Your task to perform on an android device: turn off priority inbox in the gmail app Image 0: 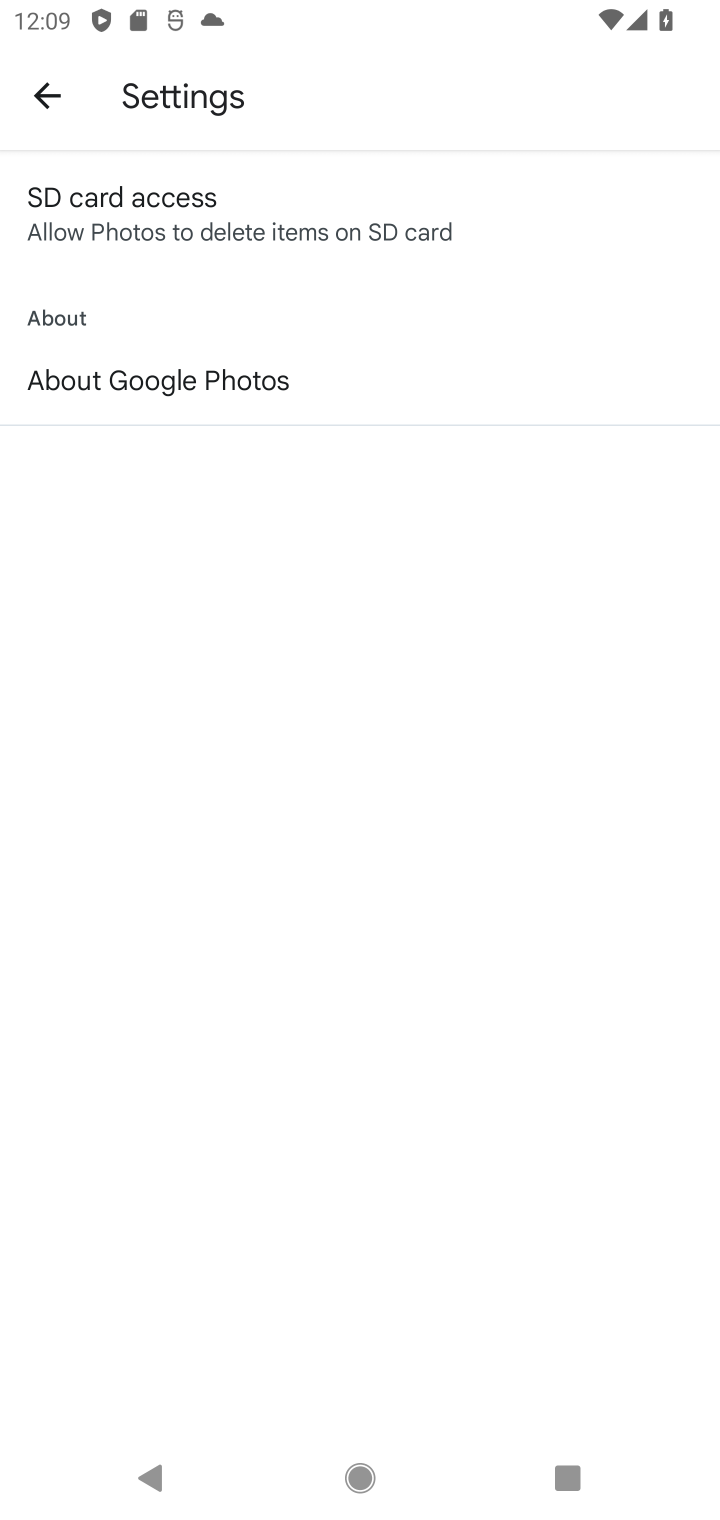
Step 0: press home button
Your task to perform on an android device: turn off priority inbox in the gmail app Image 1: 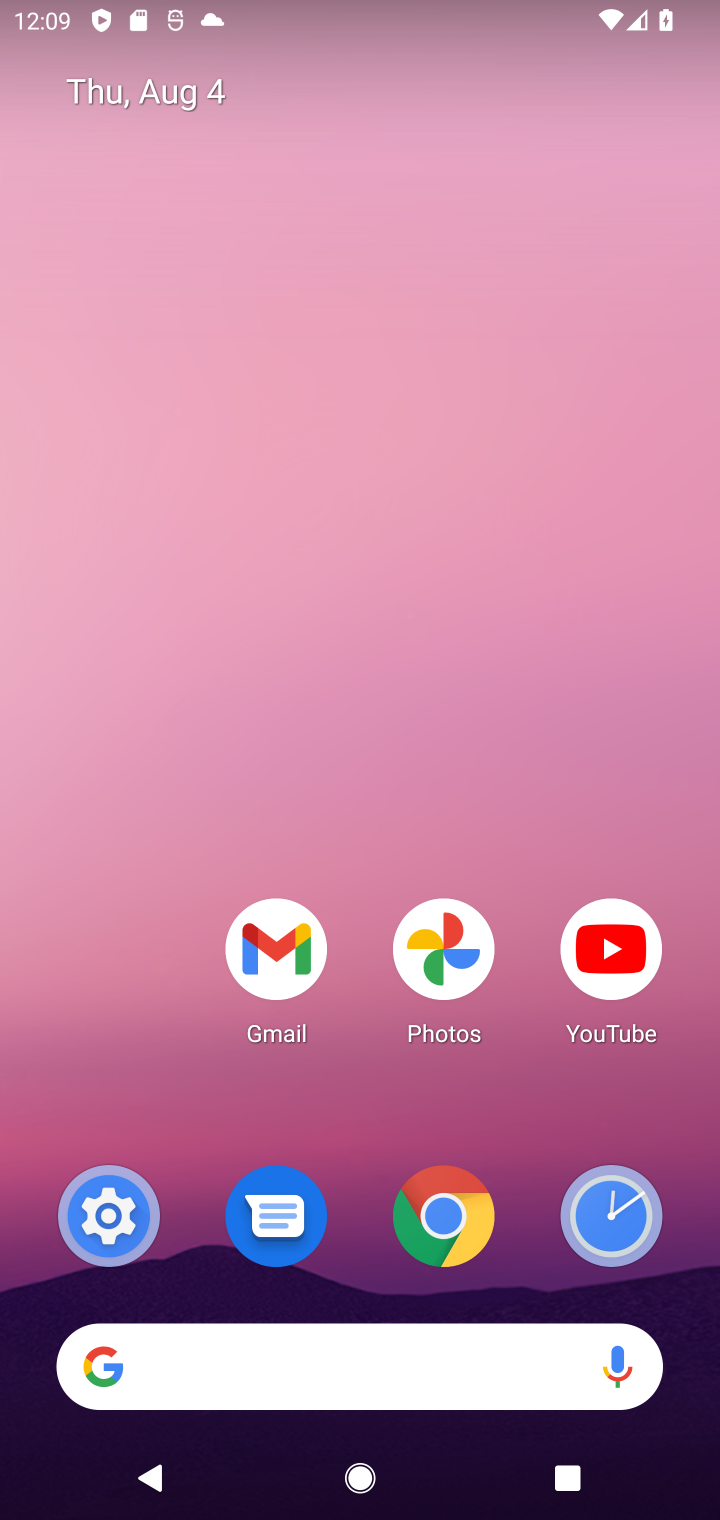
Step 1: click (277, 948)
Your task to perform on an android device: turn off priority inbox in the gmail app Image 2: 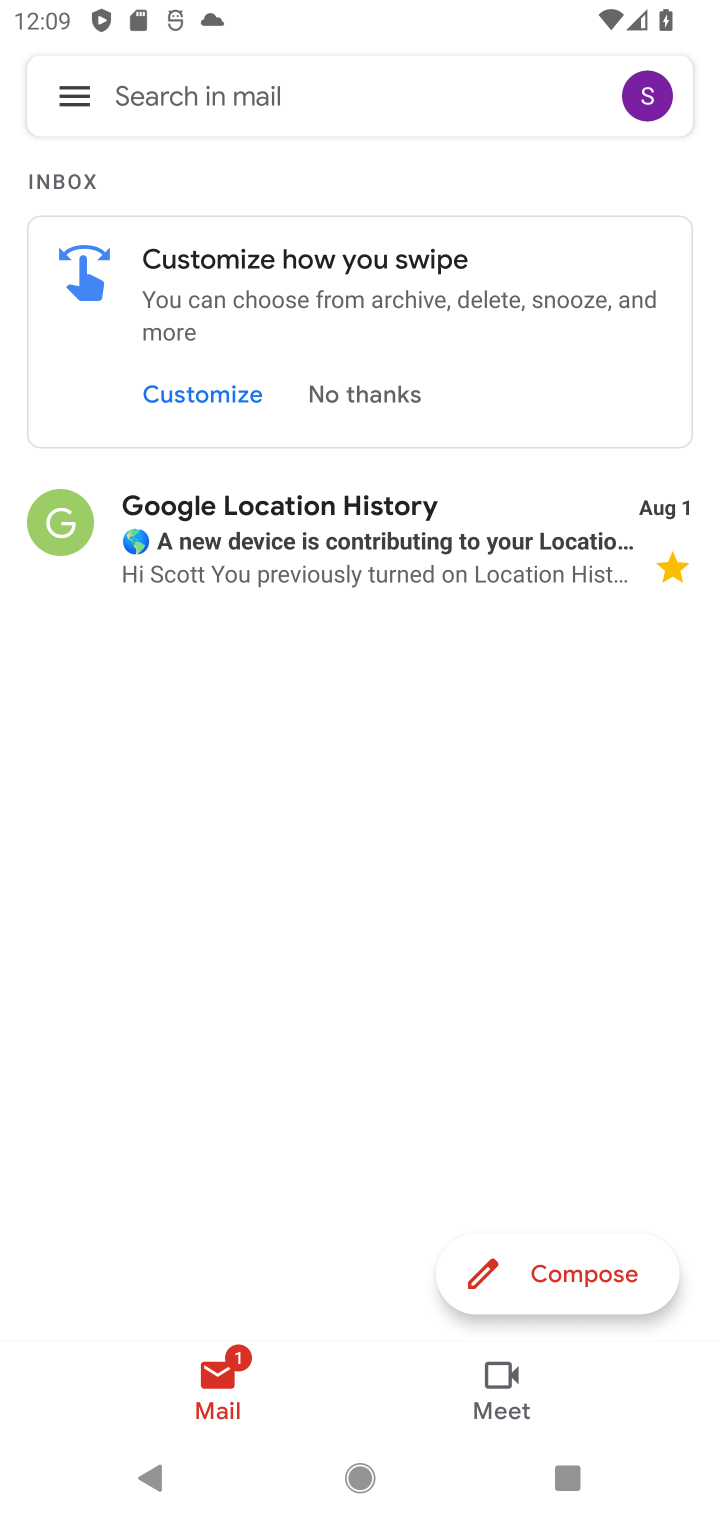
Step 2: click (75, 95)
Your task to perform on an android device: turn off priority inbox in the gmail app Image 3: 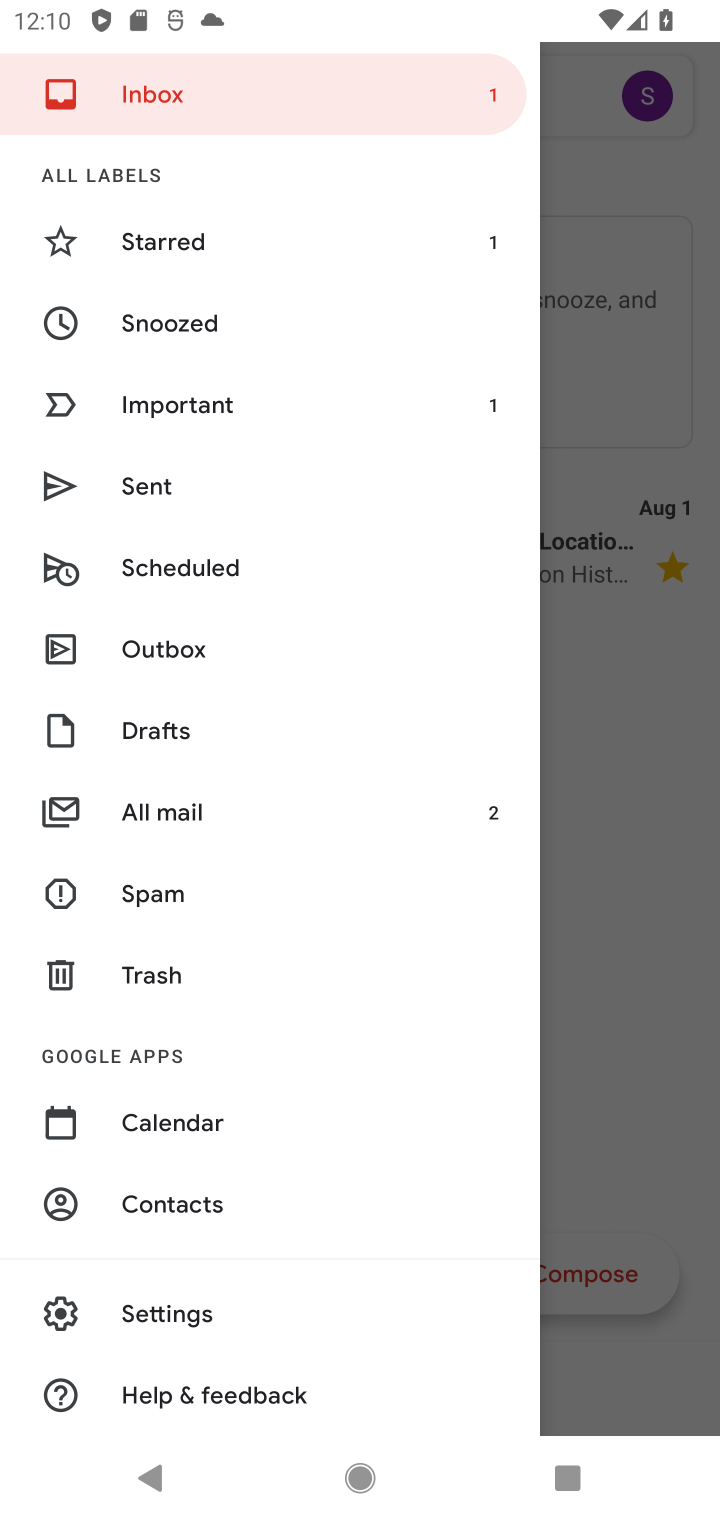
Step 3: click (190, 1315)
Your task to perform on an android device: turn off priority inbox in the gmail app Image 4: 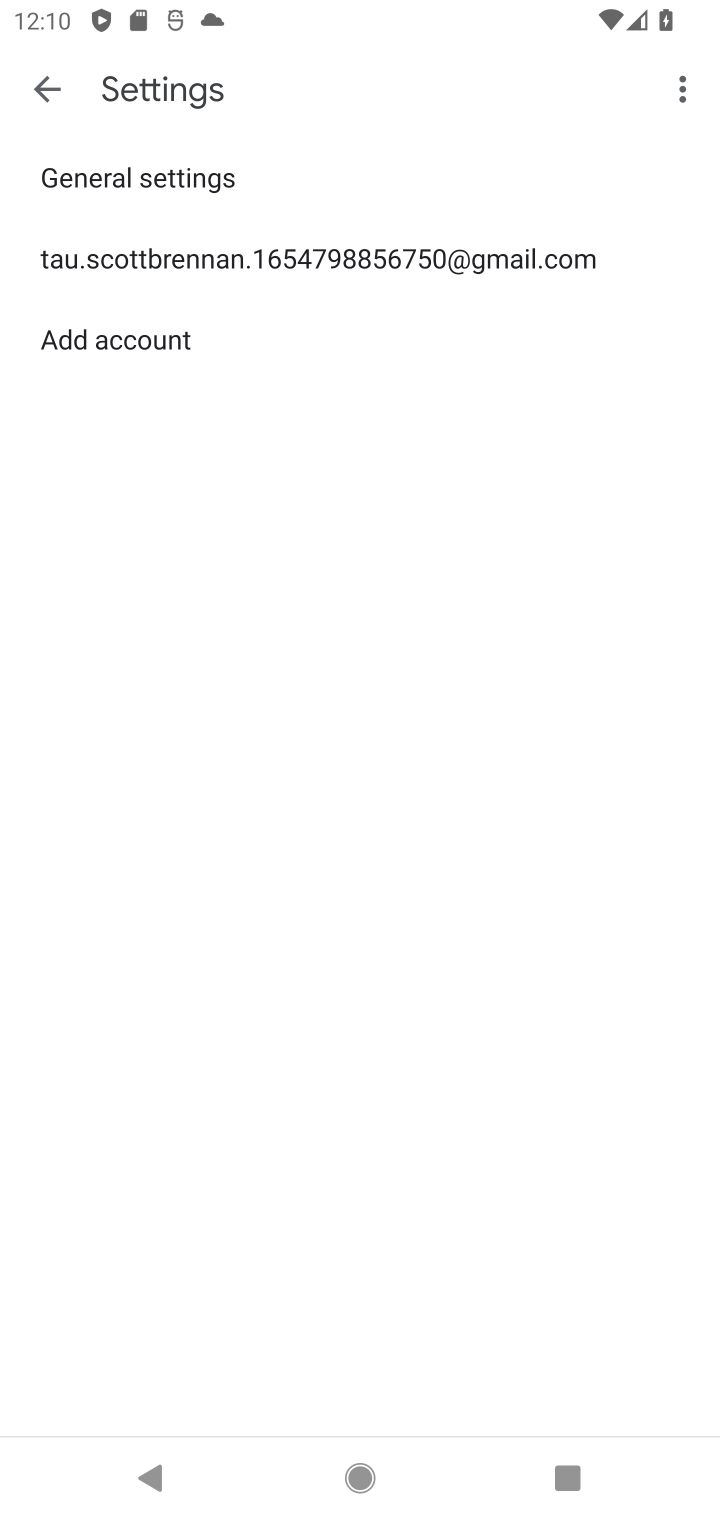
Step 4: click (270, 266)
Your task to perform on an android device: turn off priority inbox in the gmail app Image 5: 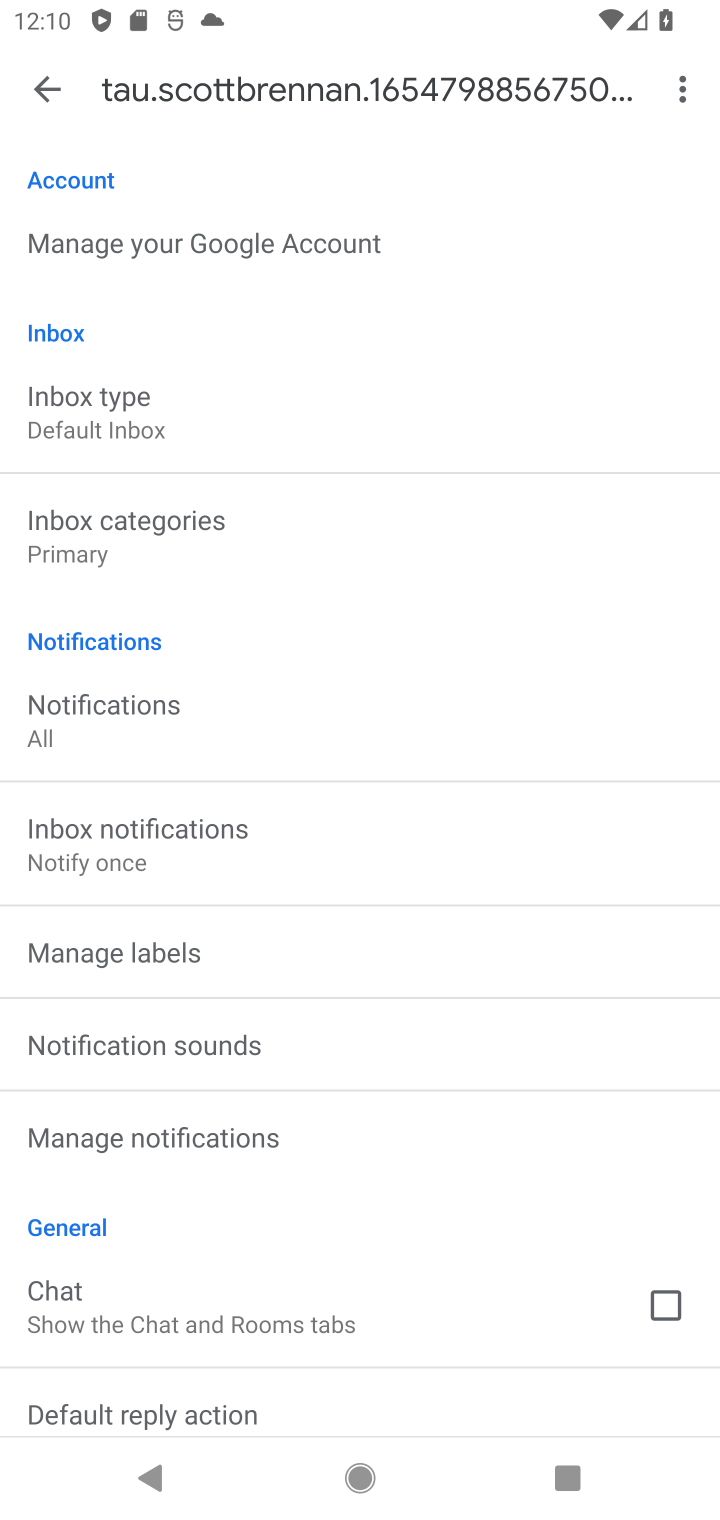
Step 5: click (98, 425)
Your task to perform on an android device: turn off priority inbox in the gmail app Image 6: 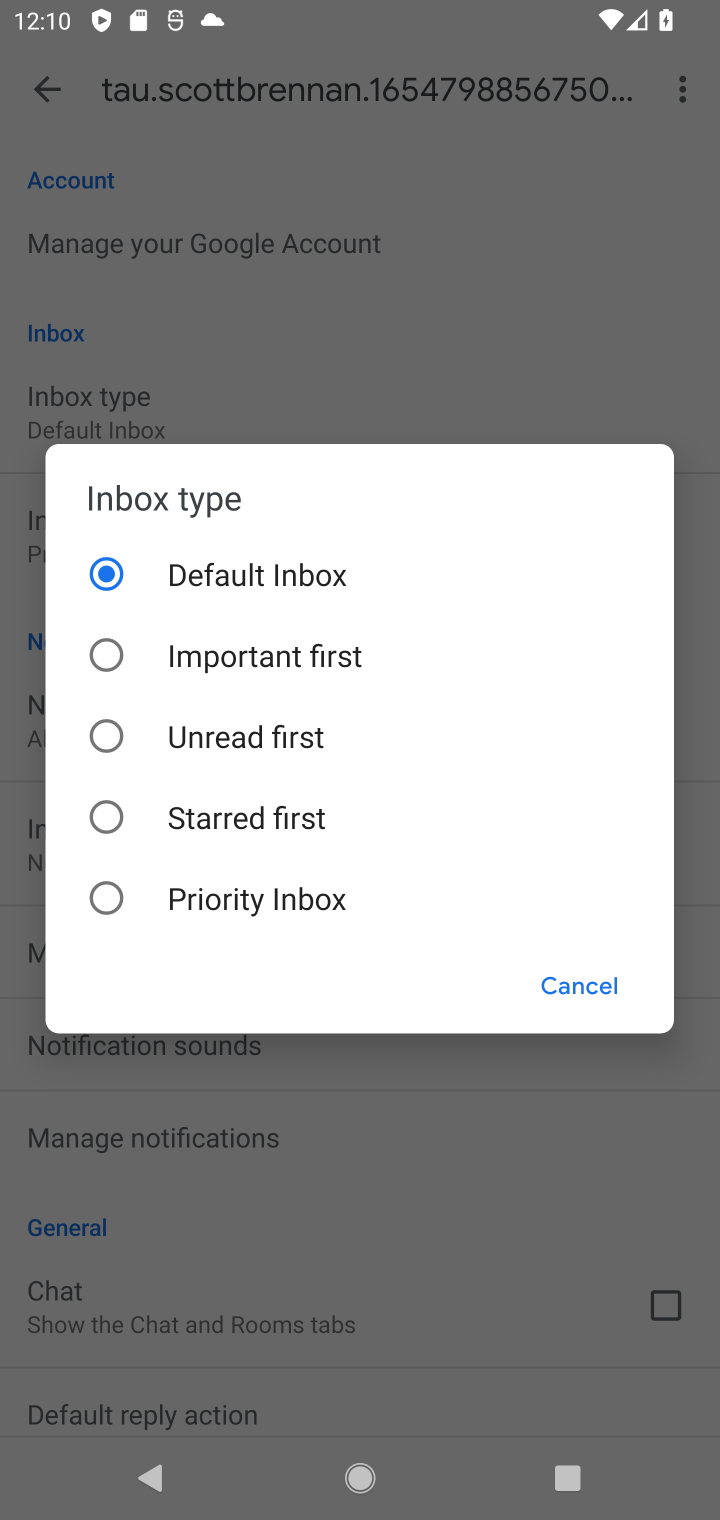
Step 6: click (117, 819)
Your task to perform on an android device: turn off priority inbox in the gmail app Image 7: 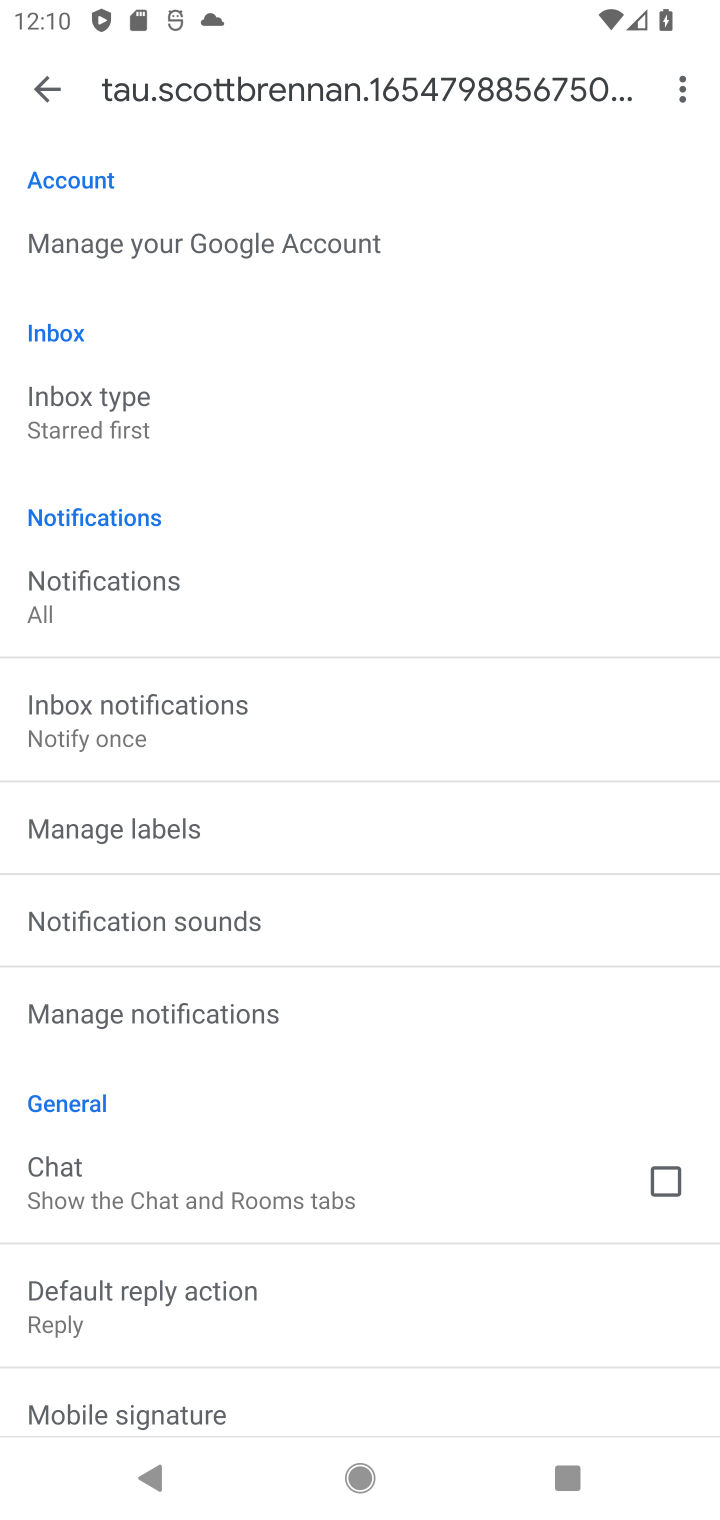
Step 7: task complete